Your task to perform on an android device: toggle sleep mode Image 0: 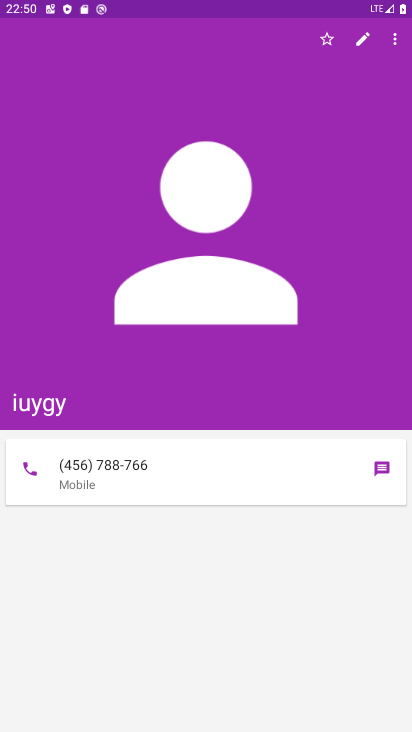
Step 0: press home button
Your task to perform on an android device: toggle sleep mode Image 1: 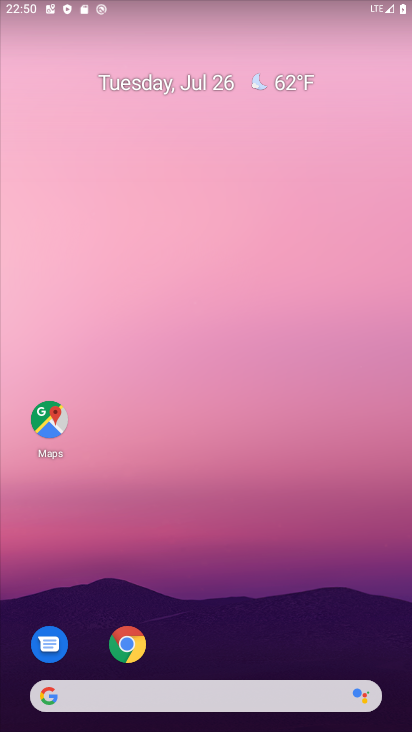
Step 1: drag from (225, 662) to (209, 51)
Your task to perform on an android device: toggle sleep mode Image 2: 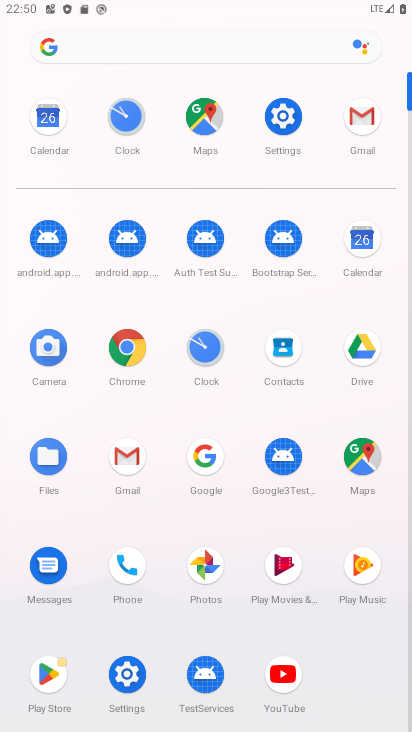
Step 2: click (273, 115)
Your task to perform on an android device: toggle sleep mode Image 3: 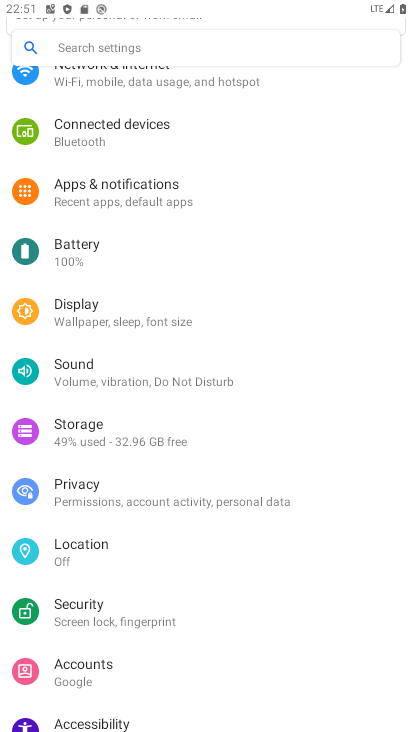
Step 3: click (85, 317)
Your task to perform on an android device: toggle sleep mode Image 4: 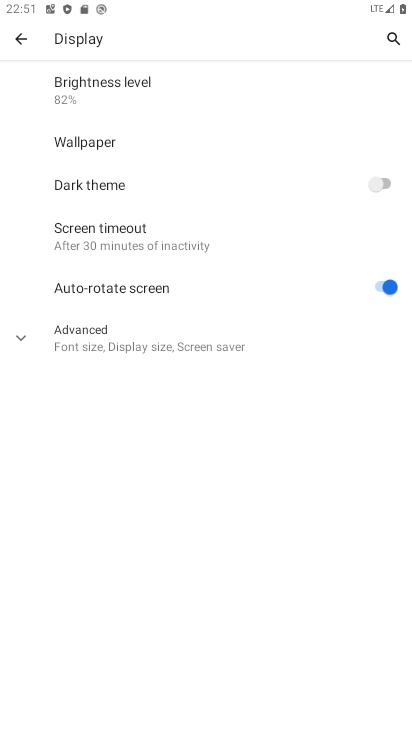
Step 4: click (10, 337)
Your task to perform on an android device: toggle sleep mode Image 5: 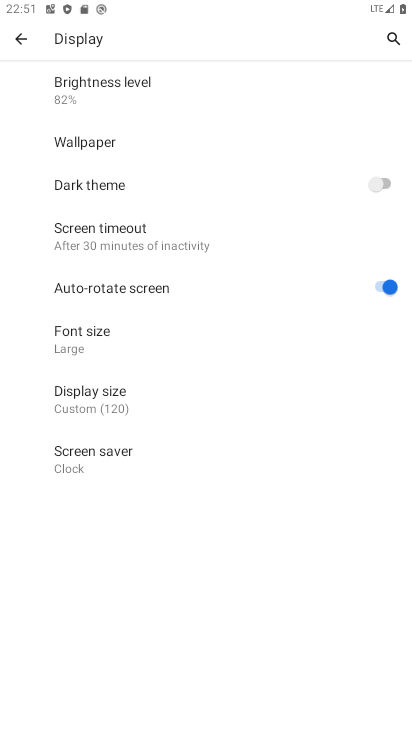
Step 5: task complete